Your task to perform on an android device: turn on airplane mode Image 0: 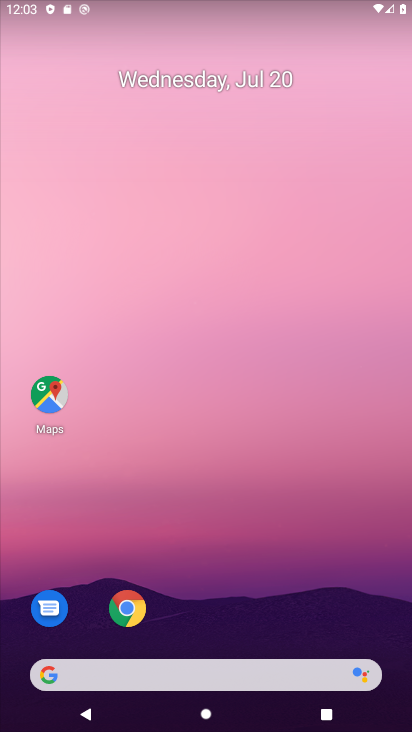
Step 0: drag from (224, 671) to (183, 128)
Your task to perform on an android device: turn on airplane mode Image 1: 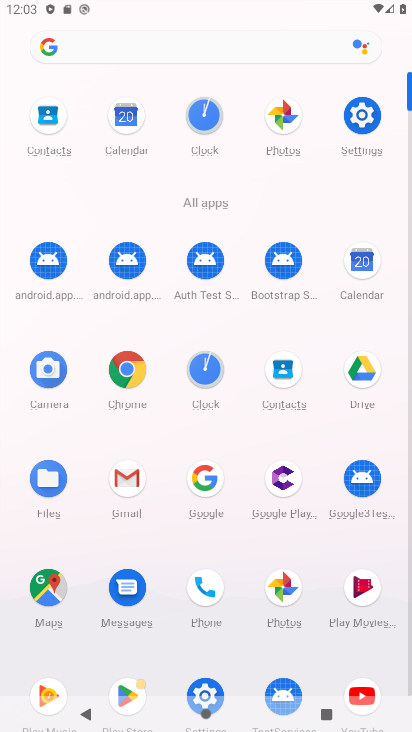
Step 1: click (362, 117)
Your task to perform on an android device: turn on airplane mode Image 2: 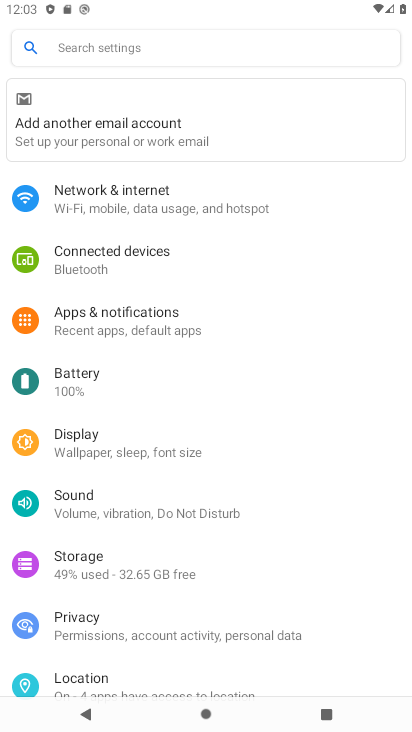
Step 2: click (163, 205)
Your task to perform on an android device: turn on airplane mode Image 3: 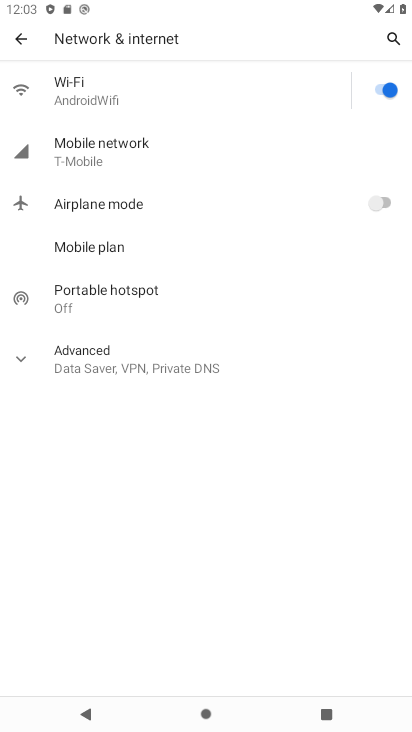
Step 3: click (387, 203)
Your task to perform on an android device: turn on airplane mode Image 4: 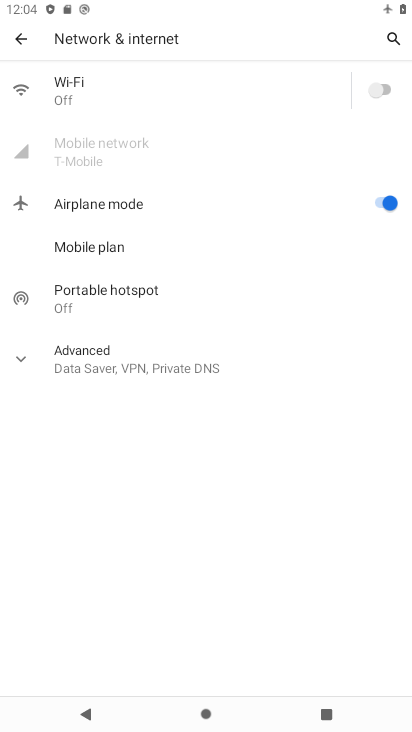
Step 4: task complete